Your task to perform on an android device: see tabs open on other devices in the chrome app Image 0: 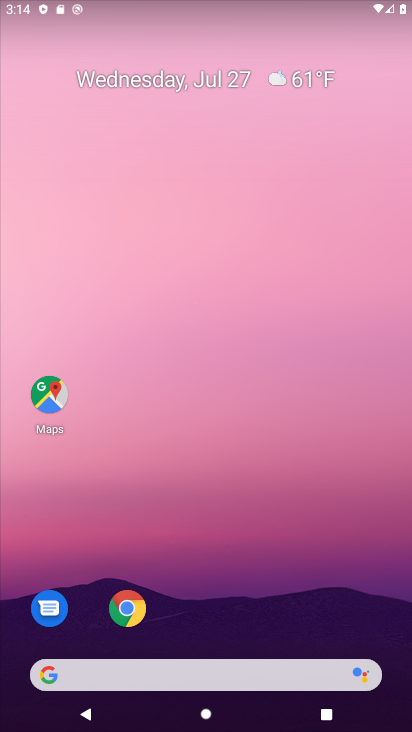
Step 0: drag from (233, 723) to (223, 225)
Your task to perform on an android device: see tabs open on other devices in the chrome app Image 1: 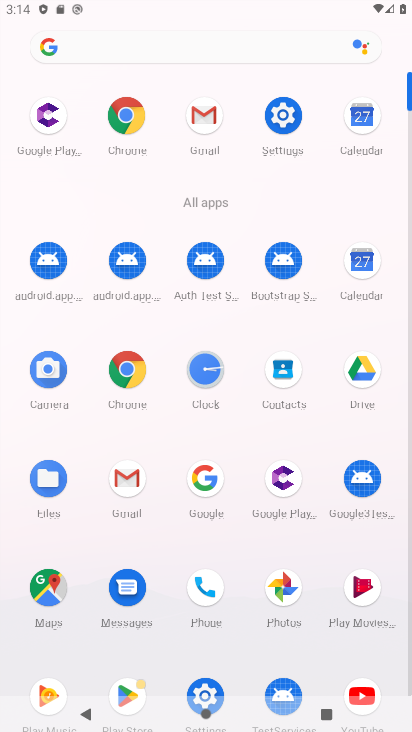
Step 1: click (128, 371)
Your task to perform on an android device: see tabs open on other devices in the chrome app Image 2: 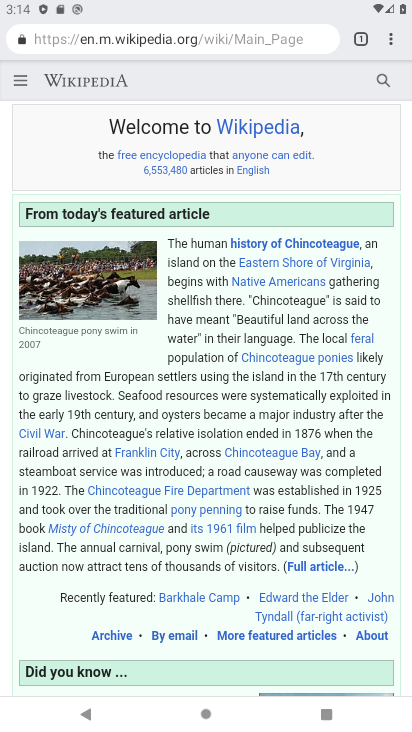
Step 2: click (388, 42)
Your task to perform on an android device: see tabs open on other devices in the chrome app Image 3: 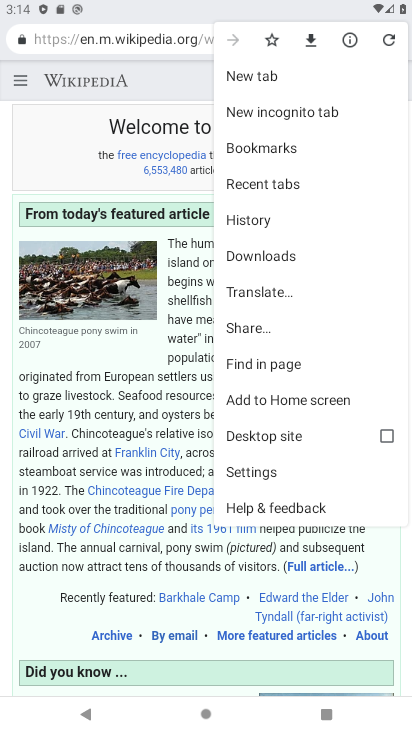
Step 3: click (251, 180)
Your task to perform on an android device: see tabs open on other devices in the chrome app Image 4: 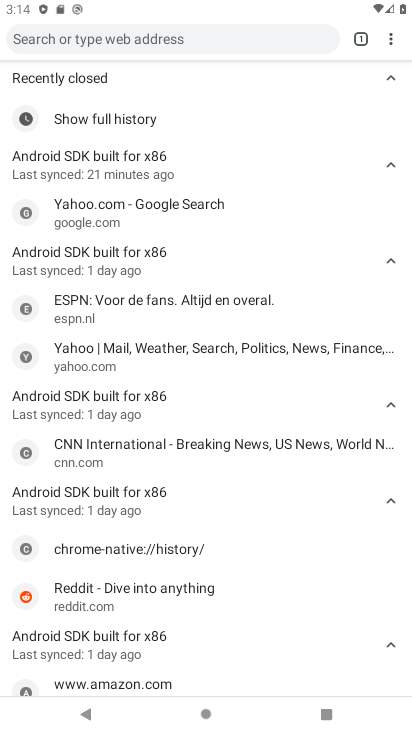
Step 4: task complete